Your task to perform on an android device: turn on sleep mode Image 0: 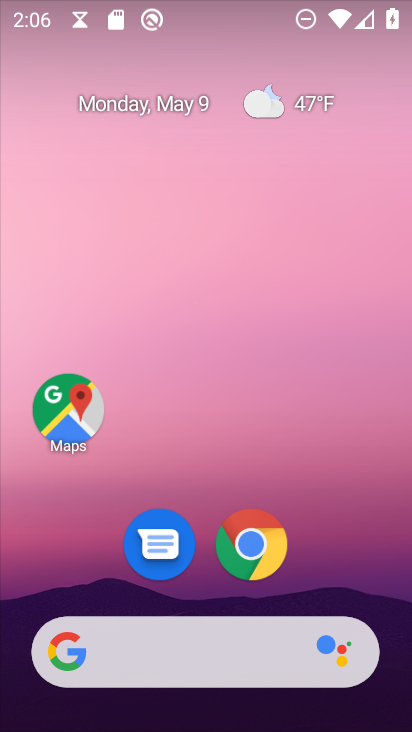
Step 0: drag from (349, 534) to (373, 154)
Your task to perform on an android device: turn on sleep mode Image 1: 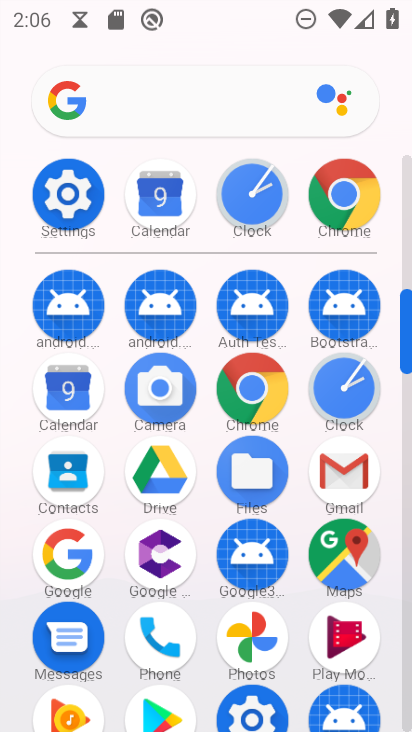
Step 1: click (57, 183)
Your task to perform on an android device: turn on sleep mode Image 2: 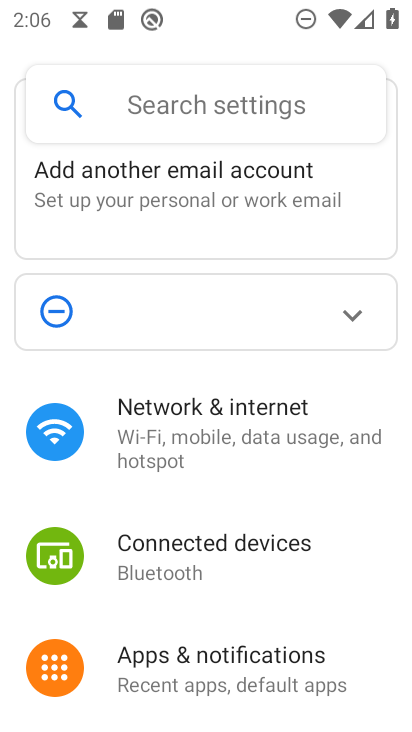
Step 2: drag from (244, 572) to (215, 256)
Your task to perform on an android device: turn on sleep mode Image 3: 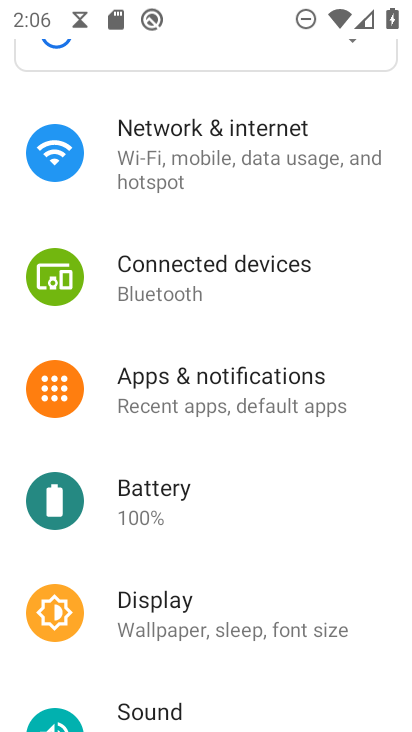
Step 3: click (187, 622)
Your task to perform on an android device: turn on sleep mode Image 4: 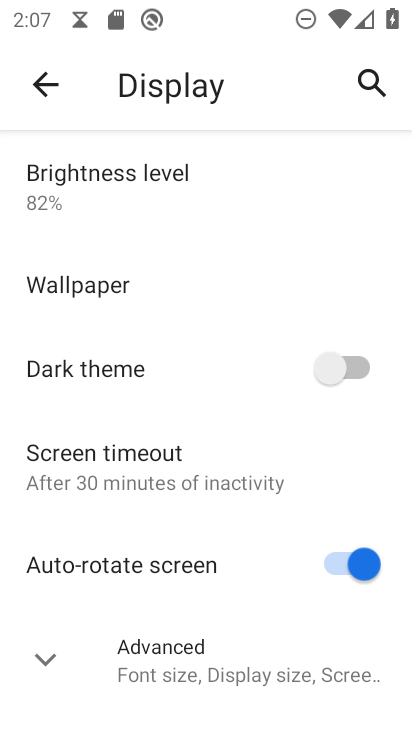
Step 4: click (95, 459)
Your task to perform on an android device: turn on sleep mode Image 5: 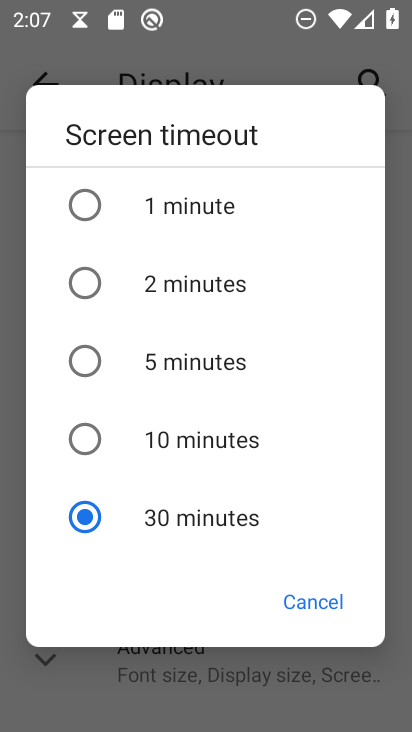
Step 5: task complete